Your task to perform on an android device: Is it going to rain tomorrow? Image 0: 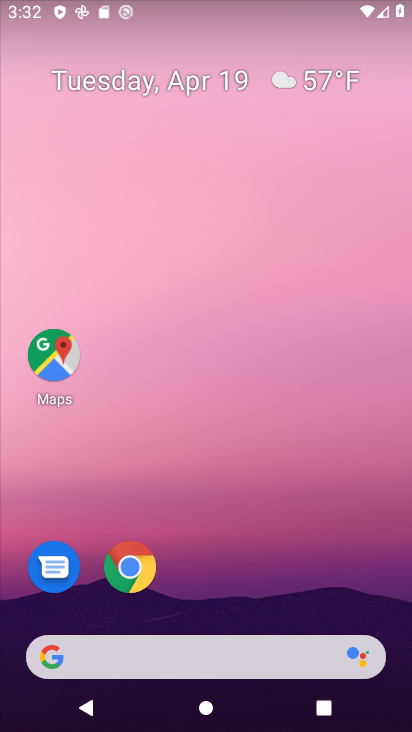
Step 0: click (201, 649)
Your task to perform on an android device: Is it going to rain tomorrow? Image 1: 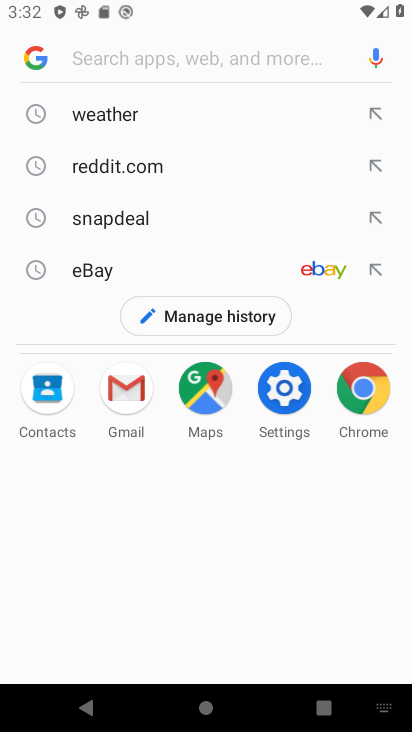
Step 1: click (117, 111)
Your task to perform on an android device: Is it going to rain tomorrow? Image 2: 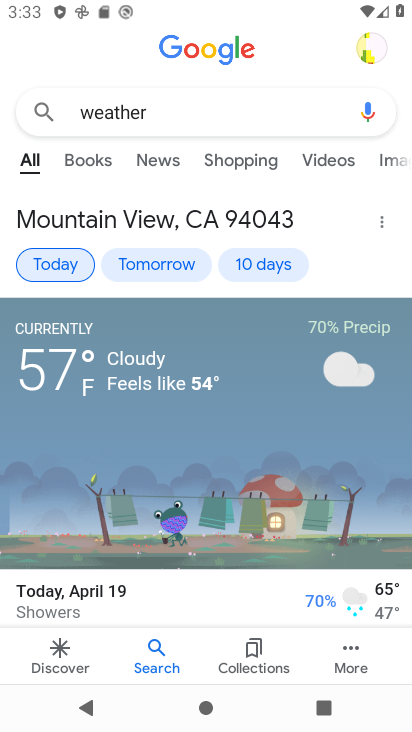
Step 2: click (147, 260)
Your task to perform on an android device: Is it going to rain tomorrow? Image 3: 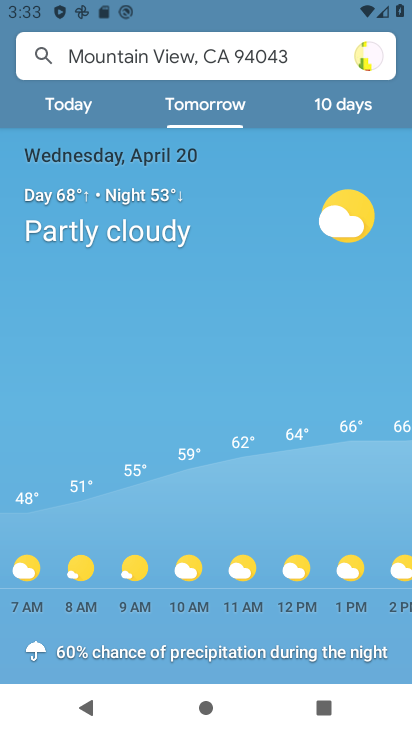
Step 3: task complete